Your task to perform on an android device: Go to internet settings Image 0: 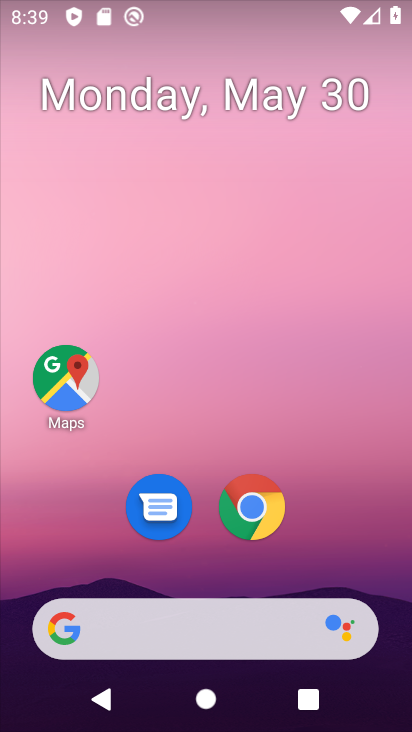
Step 0: drag from (149, 571) to (193, 120)
Your task to perform on an android device: Go to internet settings Image 1: 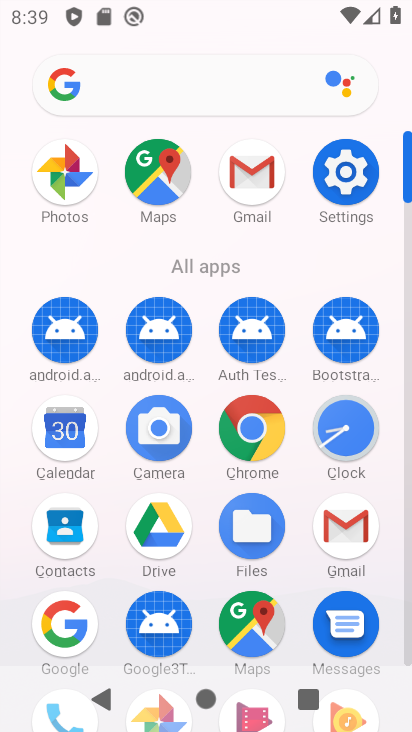
Step 1: click (328, 195)
Your task to perform on an android device: Go to internet settings Image 2: 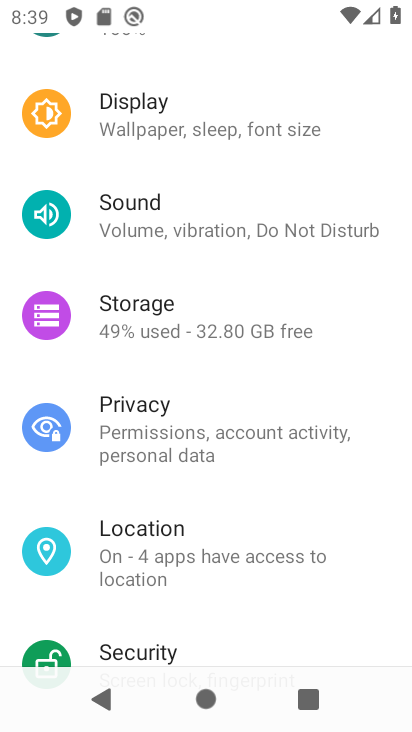
Step 2: drag from (274, 199) to (224, 488)
Your task to perform on an android device: Go to internet settings Image 3: 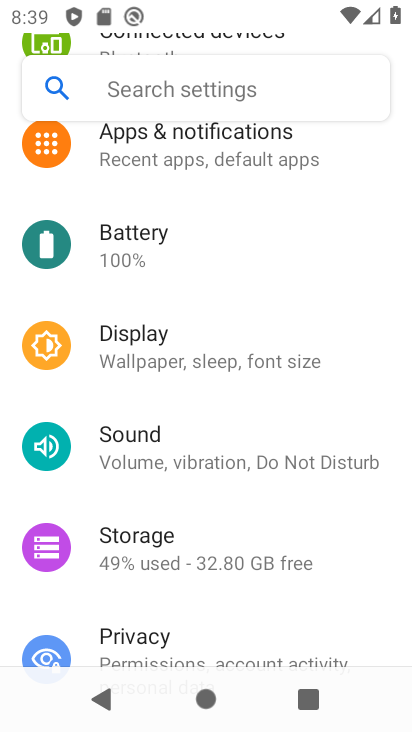
Step 3: drag from (177, 226) to (132, 639)
Your task to perform on an android device: Go to internet settings Image 4: 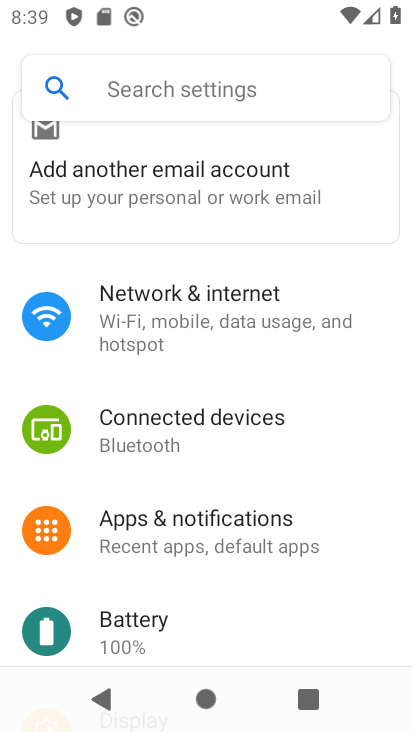
Step 4: click (139, 332)
Your task to perform on an android device: Go to internet settings Image 5: 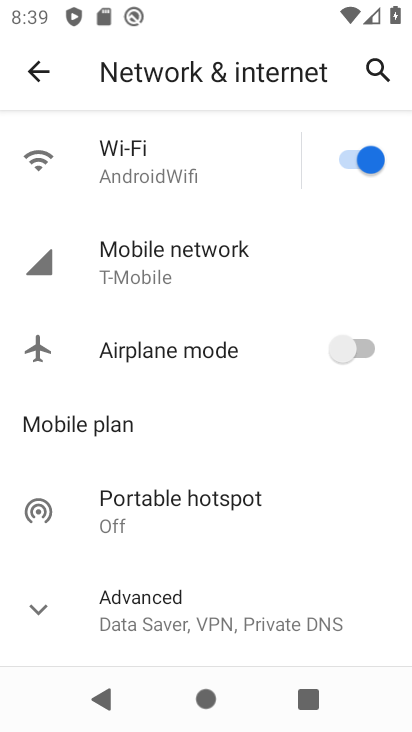
Step 5: task complete